Your task to perform on an android device: delete a single message in the gmail app Image 0: 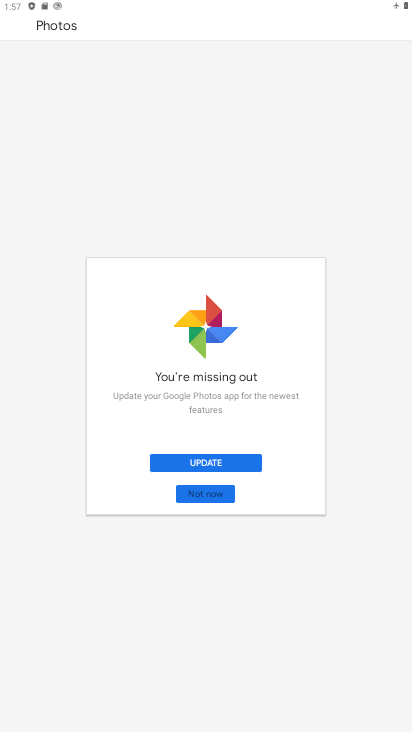
Step 0: press home button
Your task to perform on an android device: delete a single message in the gmail app Image 1: 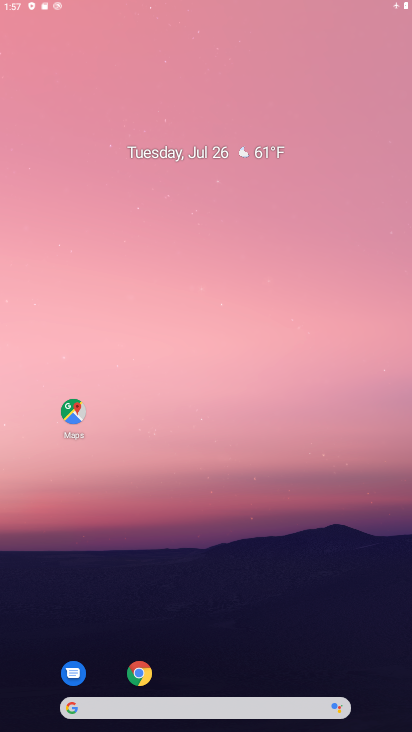
Step 1: drag from (259, 591) to (269, 231)
Your task to perform on an android device: delete a single message in the gmail app Image 2: 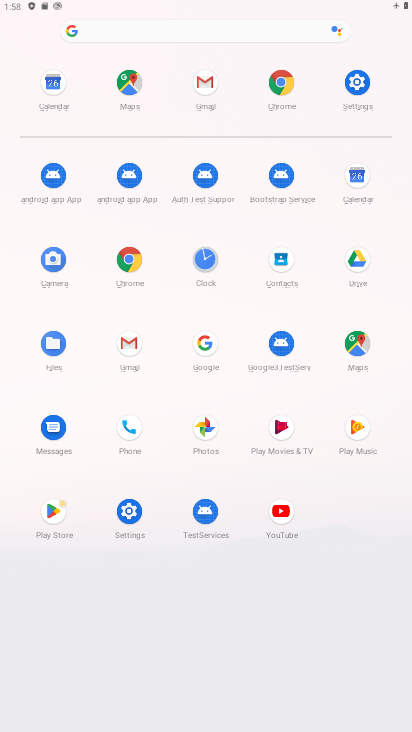
Step 2: click (127, 339)
Your task to perform on an android device: delete a single message in the gmail app Image 3: 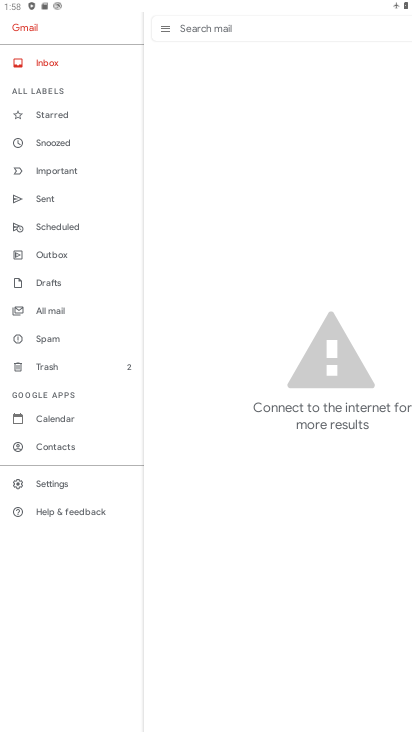
Step 3: drag from (287, 578) to (310, 361)
Your task to perform on an android device: delete a single message in the gmail app Image 4: 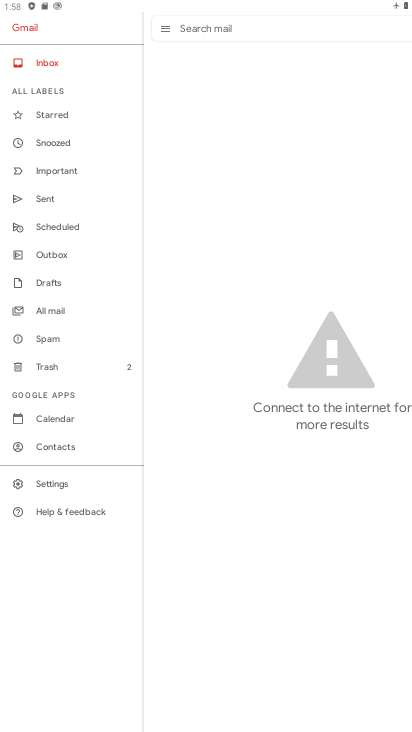
Step 4: click (55, 56)
Your task to perform on an android device: delete a single message in the gmail app Image 5: 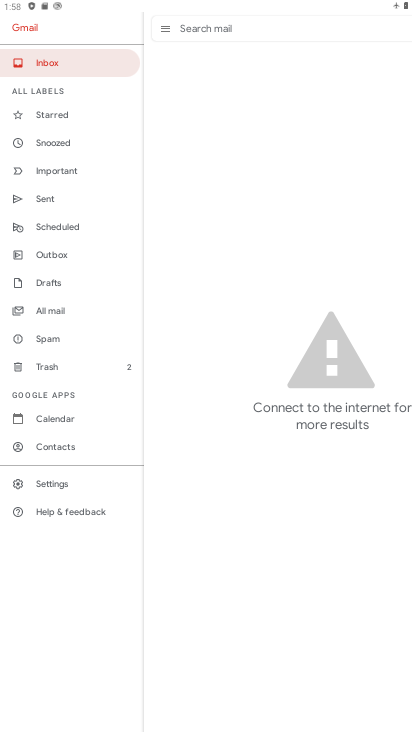
Step 5: click (337, 209)
Your task to perform on an android device: delete a single message in the gmail app Image 6: 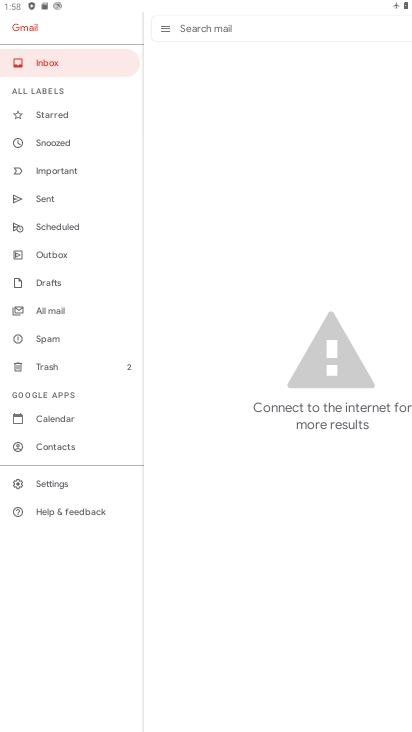
Step 6: task complete